Your task to perform on an android device: Open battery settings Image 0: 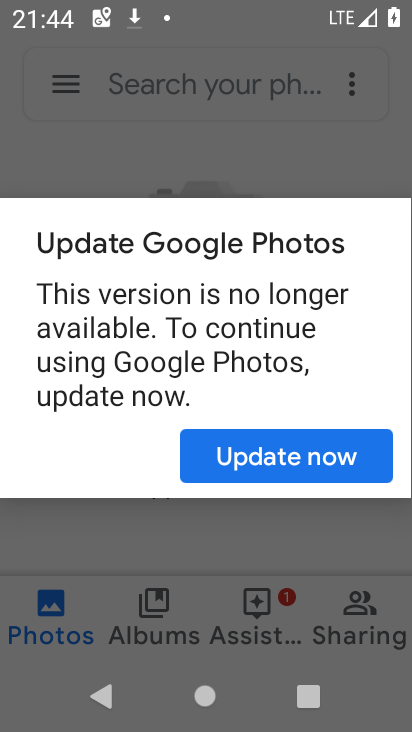
Step 0: press home button
Your task to perform on an android device: Open battery settings Image 1: 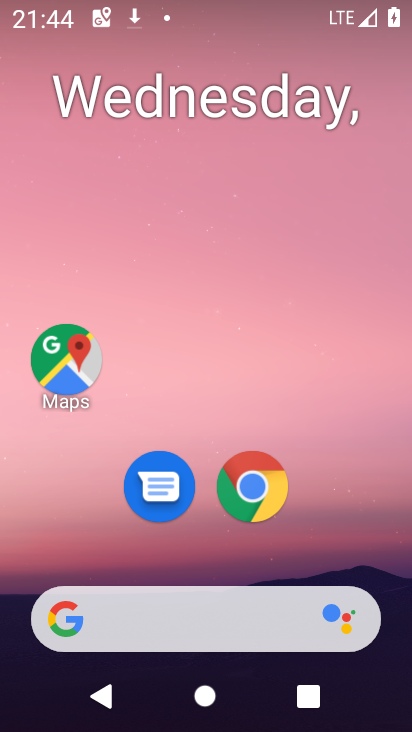
Step 1: drag from (93, 563) to (225, 41)
Your task to perform on an android device: Open battery settings Image 2: 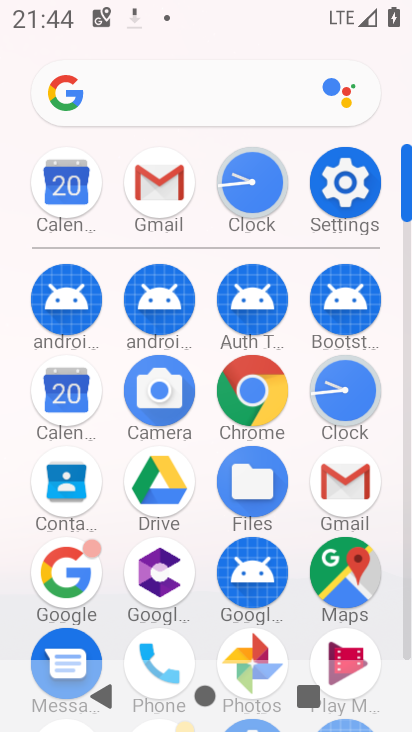
Step 2: click (339, 180)
Your task to perform on an android device: Open battery settings Image 3: 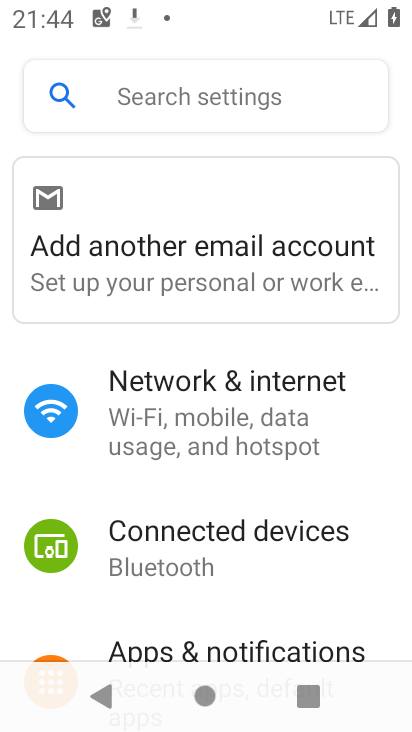
Step 3: drag from (197, 610) to (138, 439)
Your task to perform on an android device: Open battery settings Image 4: 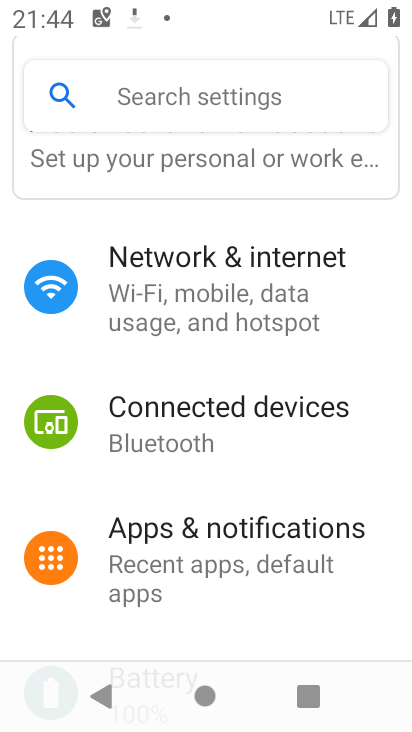
Step 4: drag from (254, 591) to (375, 166)
Your task to perform on an android device: Open battery settings Image 5: 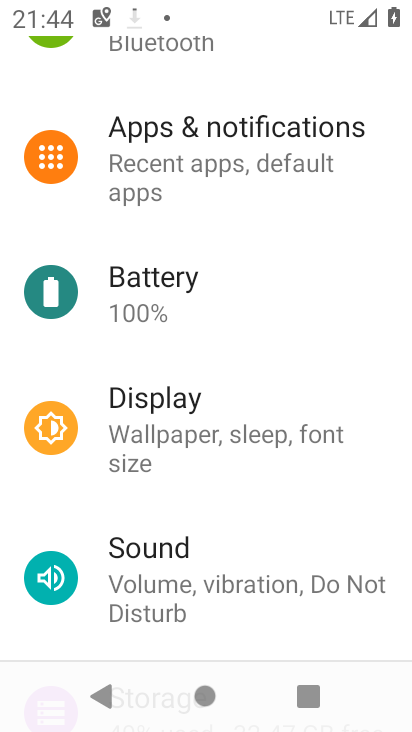
Step 5: click (194, 293)
Your task to perform on an android device: Open battery settings Image 6: 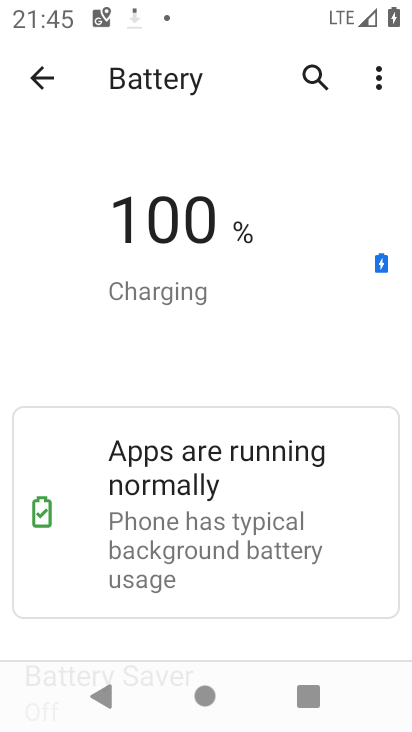
Step 6: task complete